Your task to perform on an android device: Open my contact list Image 0: 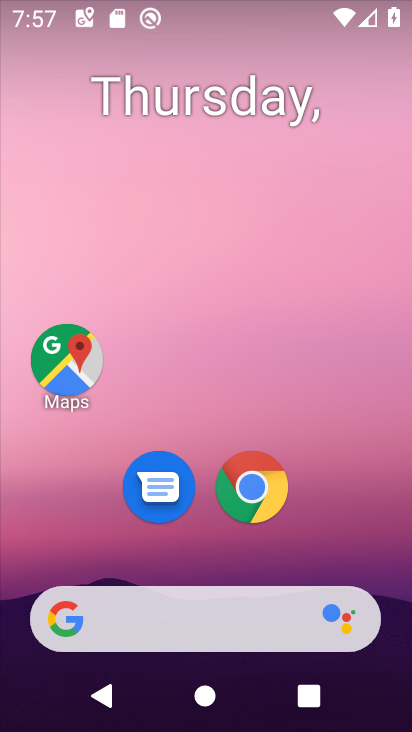
Step 0: drag from (241, 565) to (272, 14)
Your task to perform on an android device: Open my contact list Image 1: 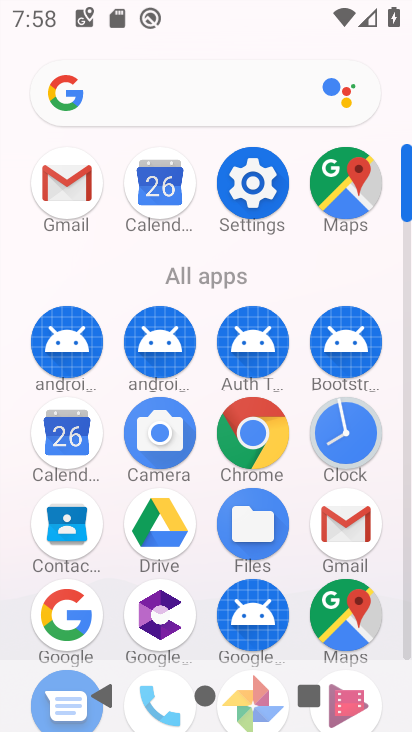
Step 1: click (71, 520)
Your task to perform on an android device: Open my contact list Image 2: 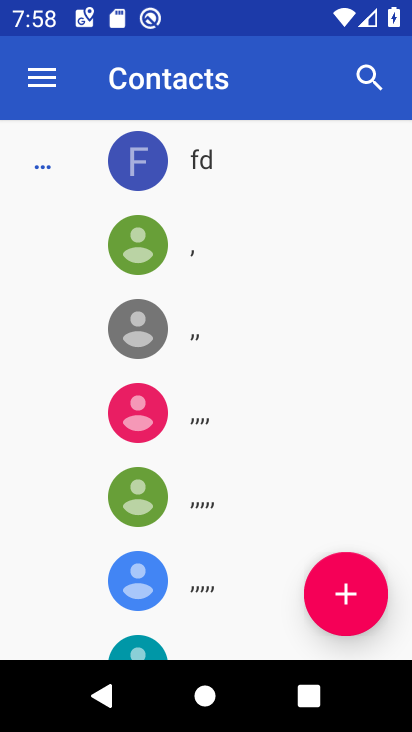
Step 2: press back button
Your task to perform on an android device: Open my contact list Image 3: 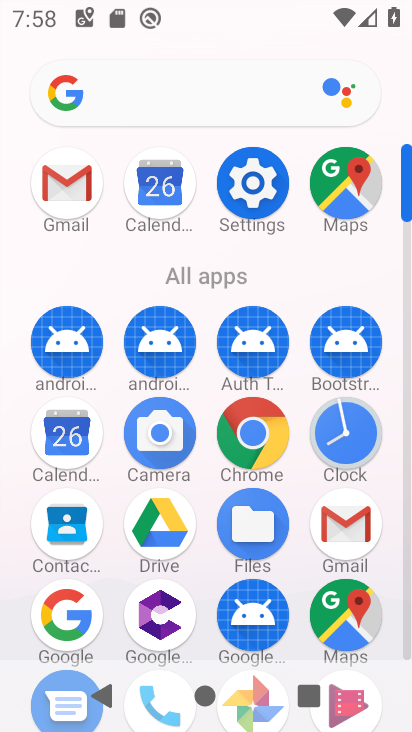
Step 3: click (62, 535)
Your task to perform on an android device: Open my contact list Image 4: 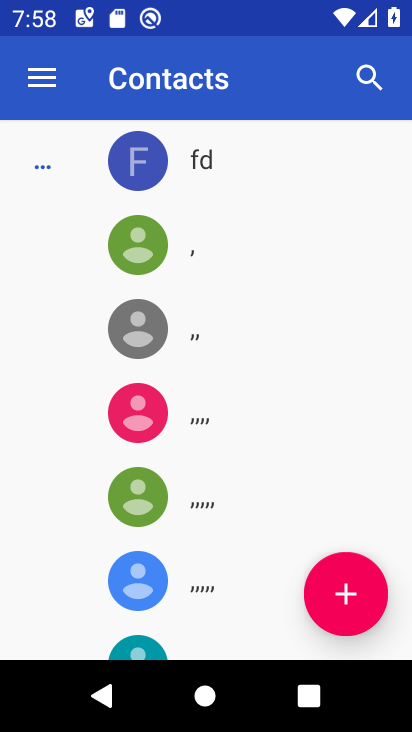
Step 4: task complete